Your task to perform on an android device: find photos in the google photos app Image 0: 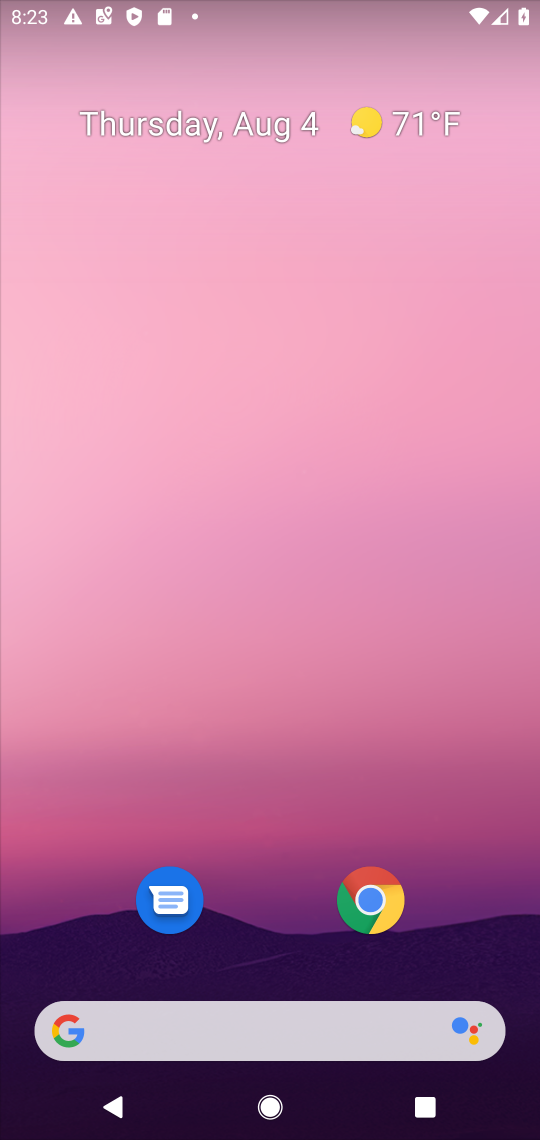
Step 0: drag from (271, 715) to (317, 260)
Your task to perform on an android device: find photos in the google photos app Image 1: 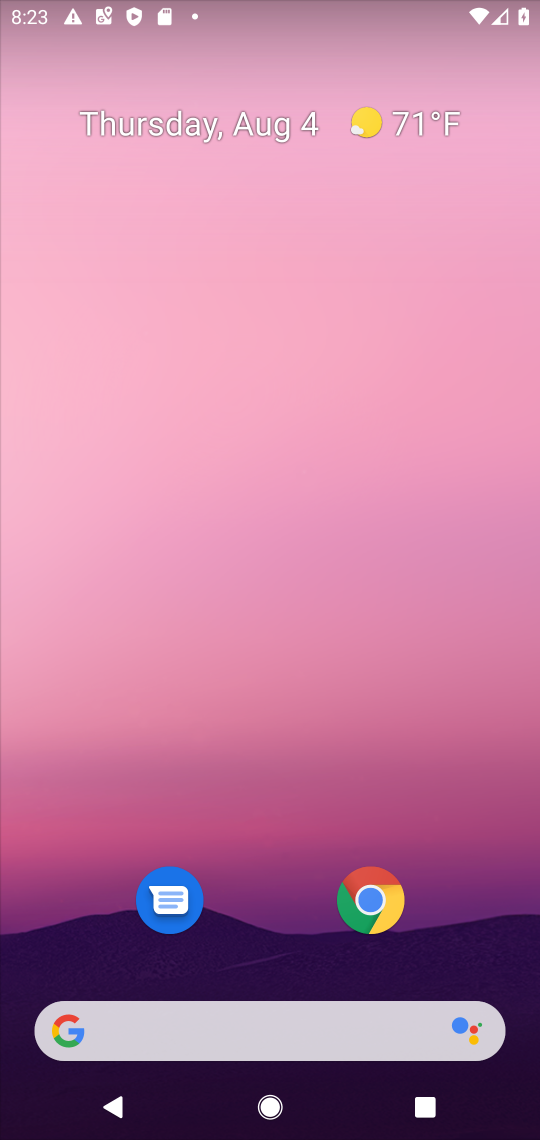
Step 1: drag from (273, 631) to (348, 173)
Your task to perform on an android device: find photos in the google photos app Image 2: 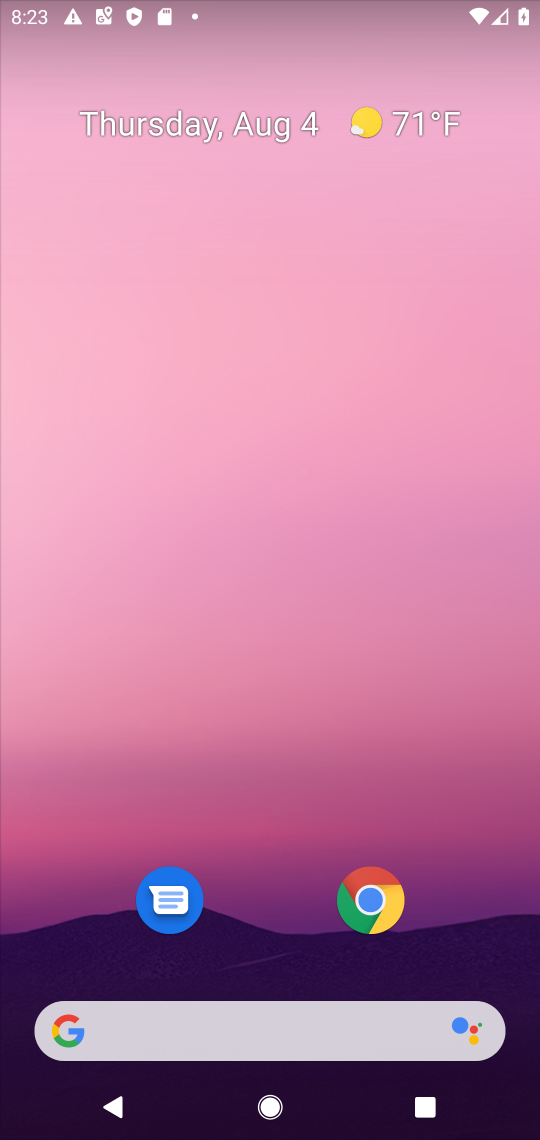
Step 2: drag from (251, 849) to (252, 274)
Your task to perform on an android device: find photos in the google photos app Image 3: 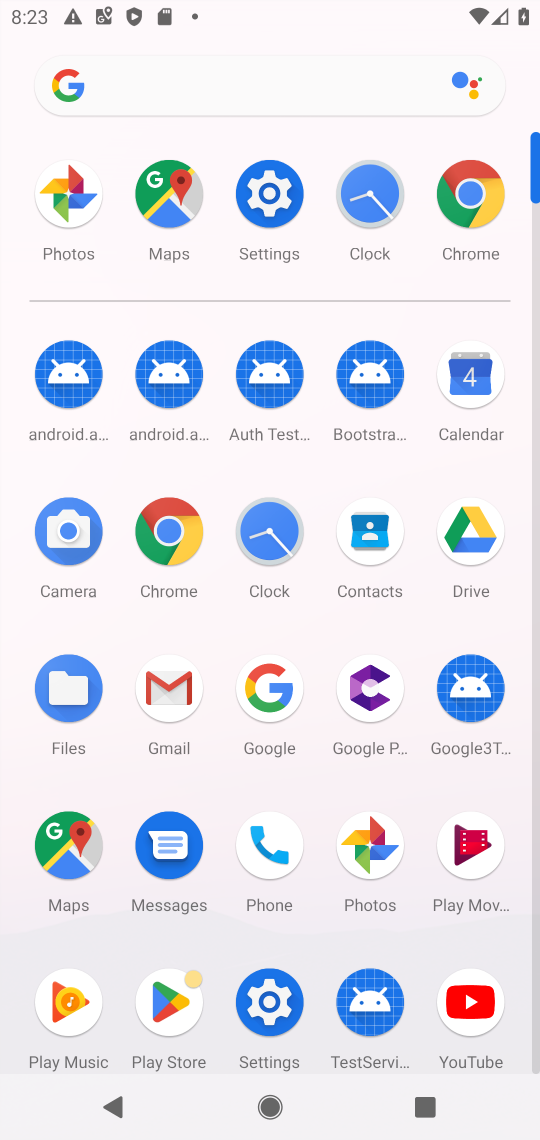
Step 3: click (363, 842)
Your task to perform on an android device: find photos in the google photos app Image 4: 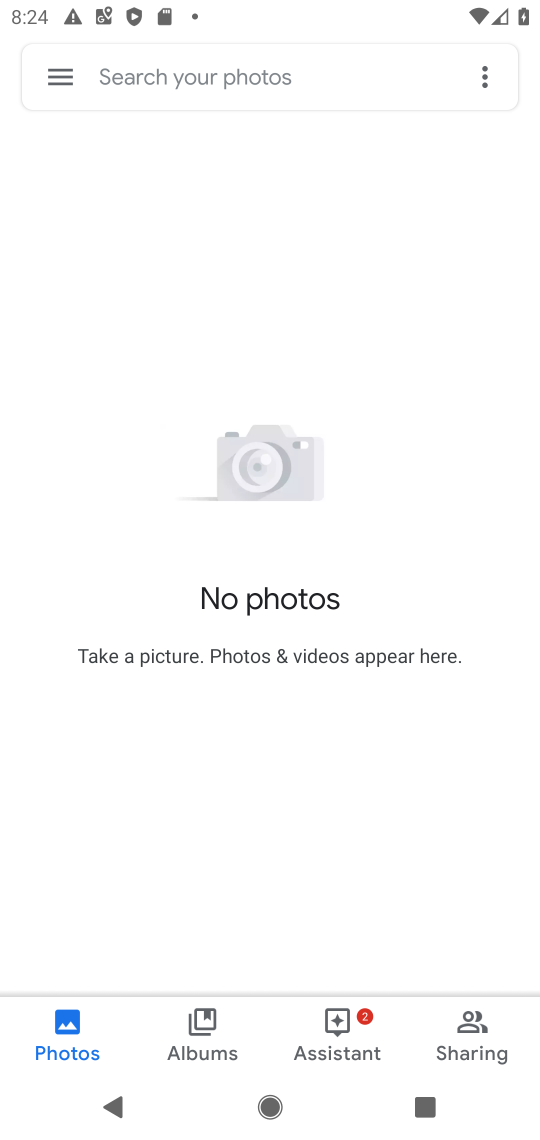
Step 4: task complete